Your task to perform on an android device: turn on improve location accuracy Image 0: 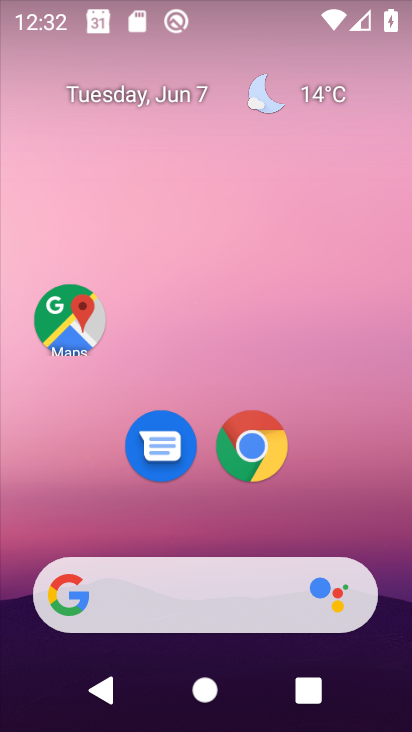
Step 0: click (283, 4)
Your task to perform on an android device: turn on improve location accuracy Image 1: 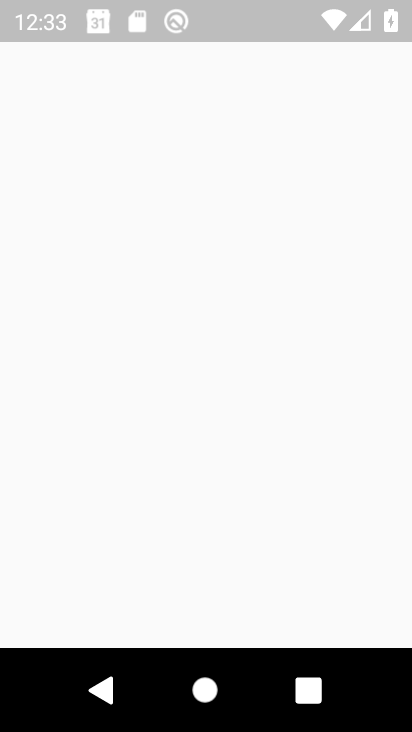
Step 1: press back button
Your task to perform on an android device: turn on improve location accuracy Image 2: 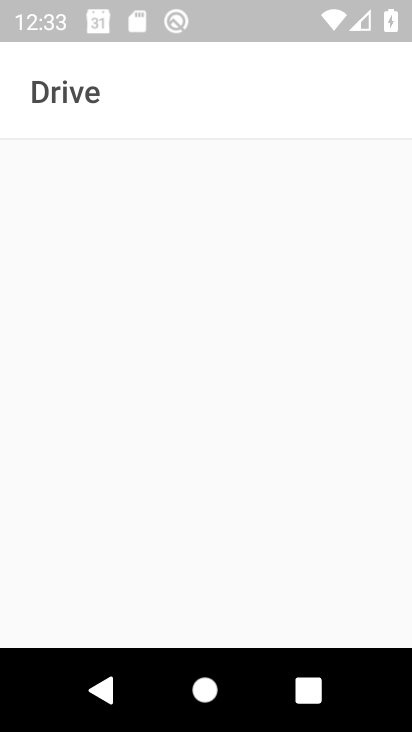
Step 2: press home button
Your task to perform on an android device: turn on improve location accuracy Image 3: 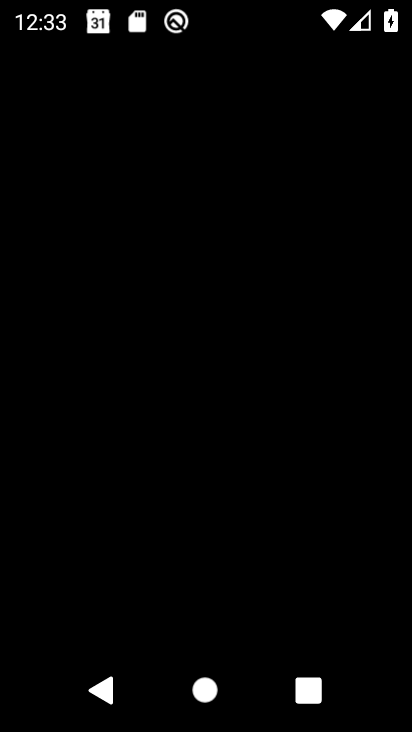
Step 3: press home button
Your task to perform on an android device: turn on improve location accuracy Image 4: 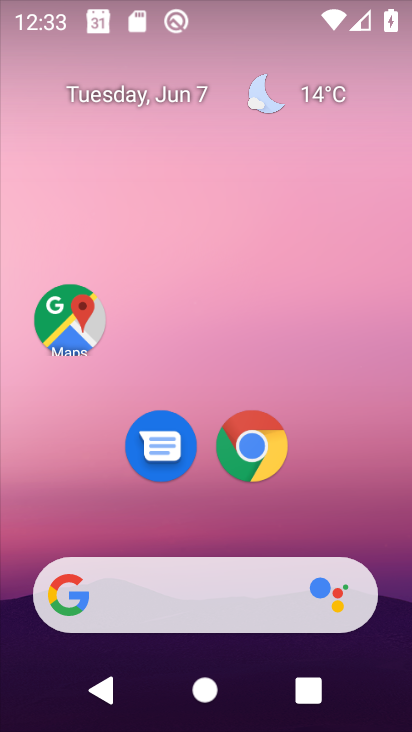
Step 4: drag from (141, 539) to (225, 49)
Your task to perform on an android device: turn on improve location accuracy Image 5: 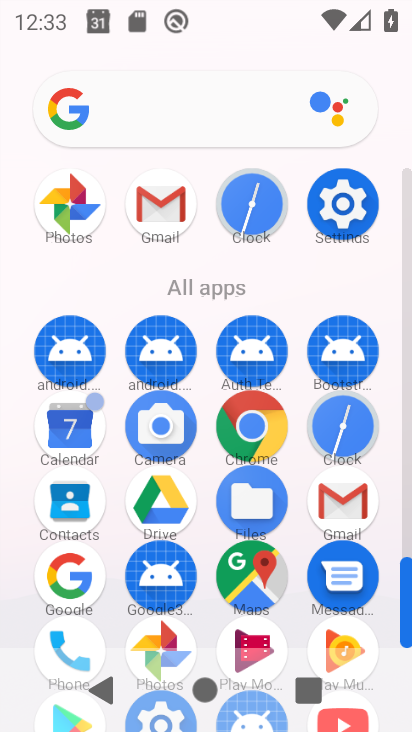
Step 5: click (338, 207)
Your task to perform on an android device: turn on improve location accuracy Image 6: 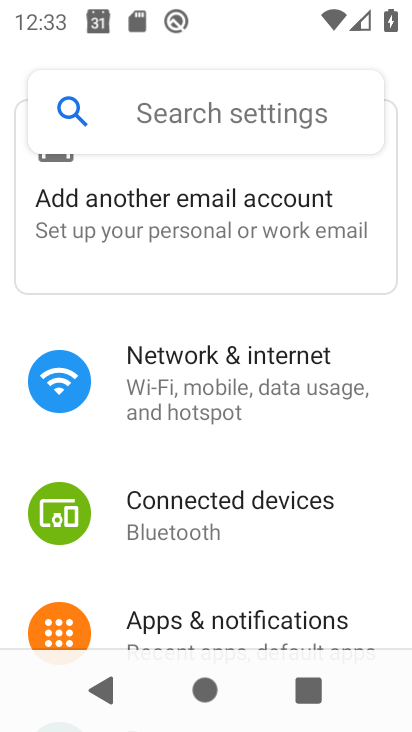
Step 6: drag from (223, 568) to (293, 96)
Your task to perform on an android device: turn on improve location accuracy Image 7: 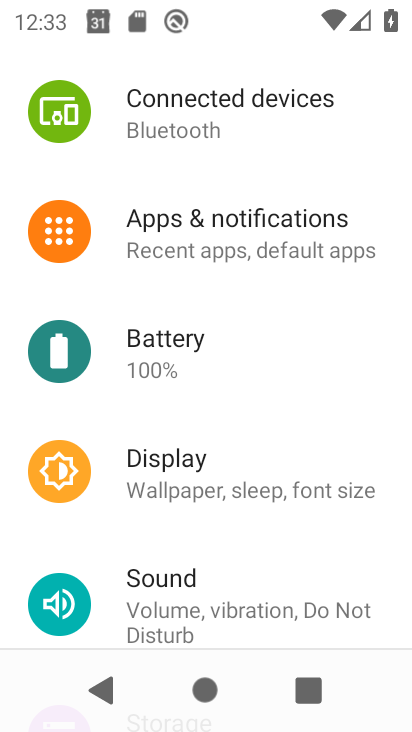
Step 7: drag from (208, 588) to (281, 51)
Your task to perform on an android device: turn on improve location accuracy Image 8: 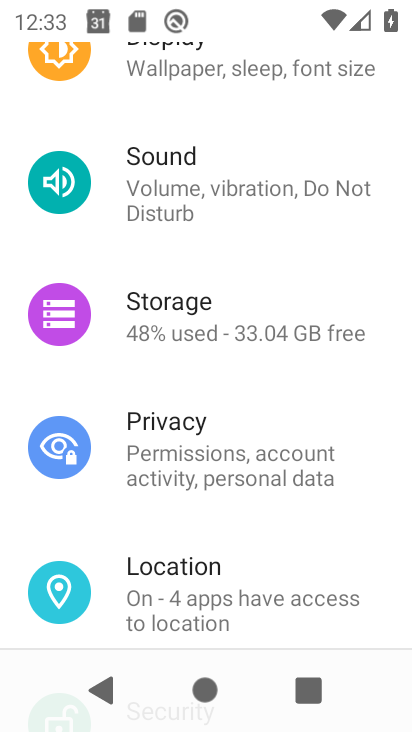
Step 8: click (184, 580)
Your task to perform on an android device: turn on improve location accuracy Image 9: 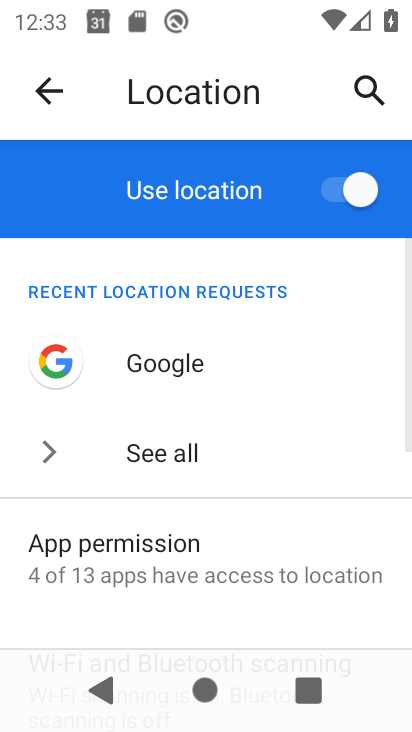
Step 9: drag from (189, 529) to (224, 61)
Your task to perform on an android device: turn on improve location accuracy Image 10: 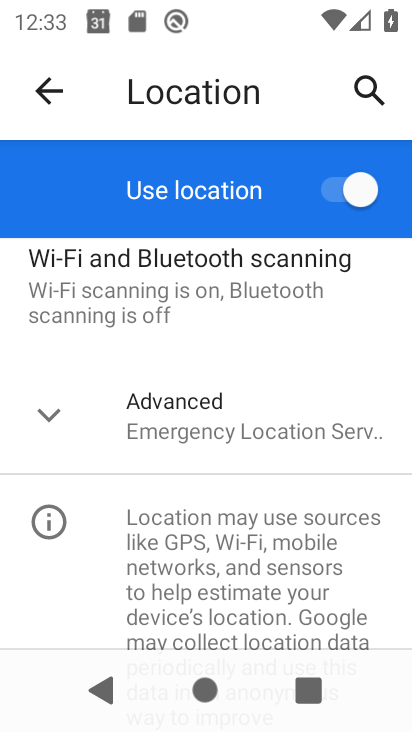
Step 10: click (208, 405)
Your task to perform on an android device: turn on improve location accuracy Image 11: 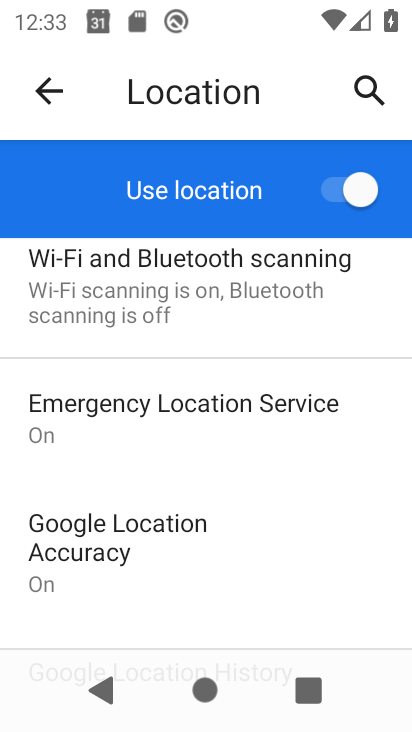
Step 11: click (131, 547)
Your task to perform on an android device: turn on improve location accuracy Image 12: 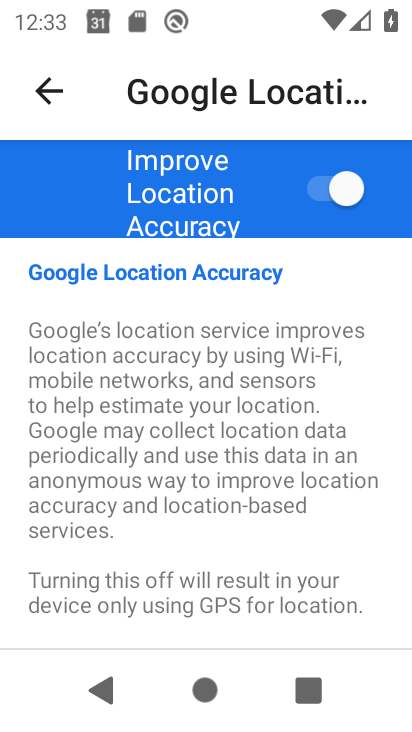
Step 12: task complete